Your task to perform on an android device: turn smart compose on in the gmail app Image 0: 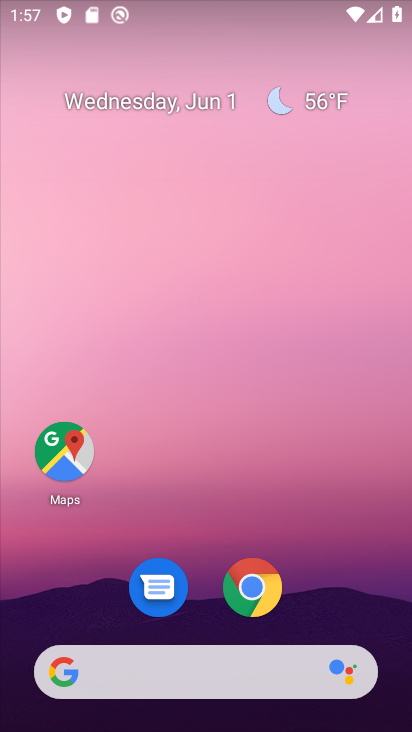
Step 0: drag from (336, 580) to (282, 68)
Your task to perform on an android device: turn smart compose on in the gmail app Image 1: 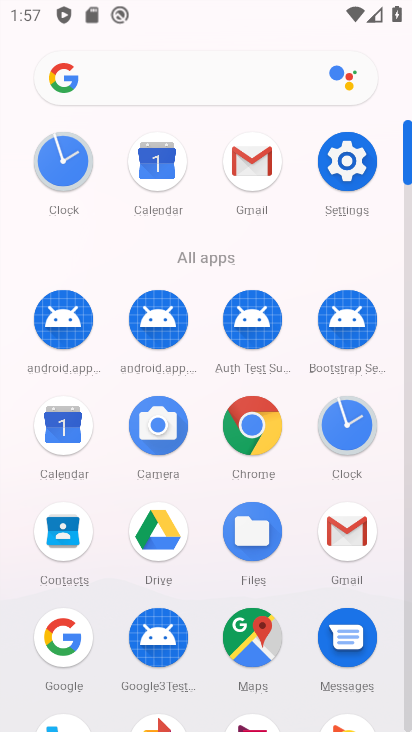
Step 1: click (253, 155)
Your task to perform on an android device: turn smart compose on in the gmail app Image 2: 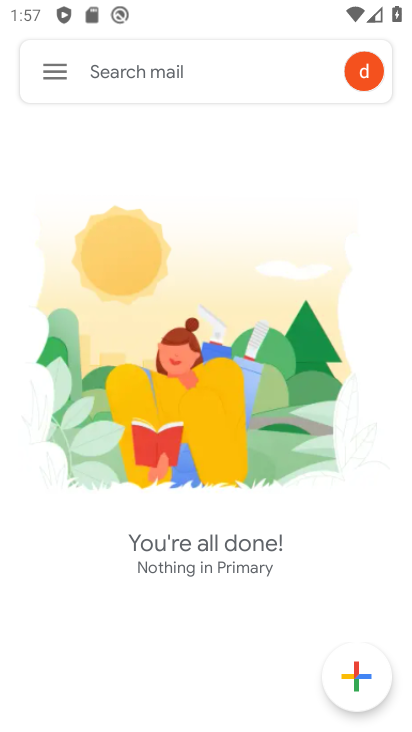
Step 2: click (49, 77)
Your task to perform on an android device: turn smart compose on in the gmail app Image 3: 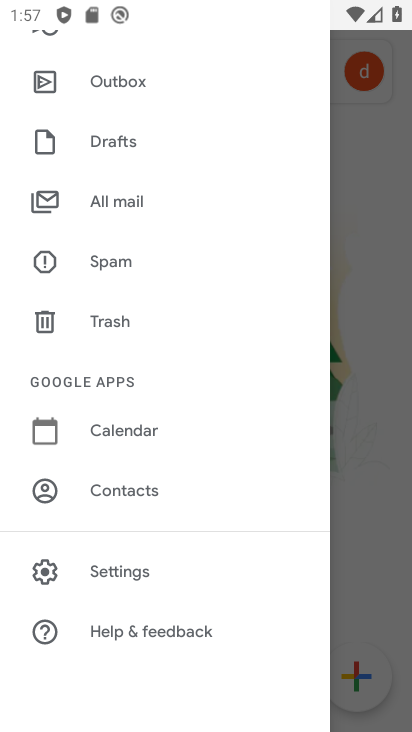
Step 3: click (135, 565)
Your task to perform on an android device: turn smart compose on in the gmail app Image 4: 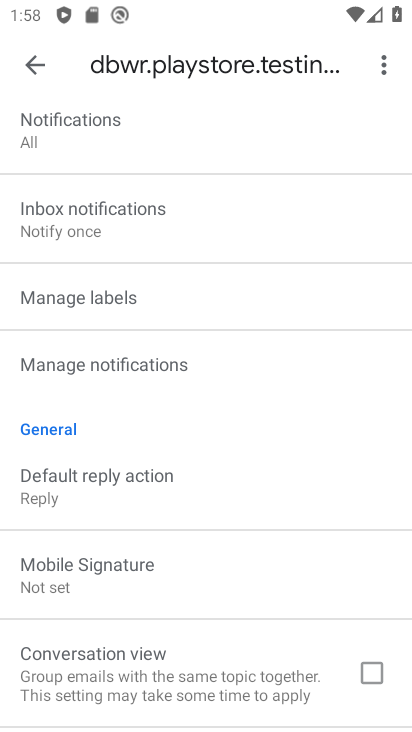
Step 4: task complete